Your task to perform on an android device: change notification settings in the gmail app Image 0: 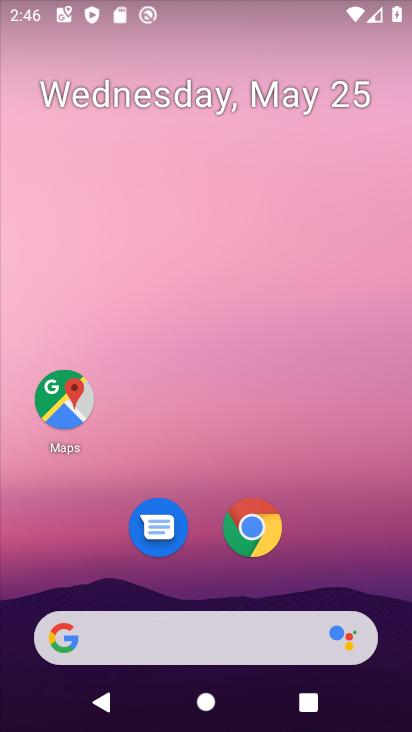
Step 0: drag from (171, 581) to (242, 122)
Your task to perform on an android device: change notification settings in the gmail app Image 1: 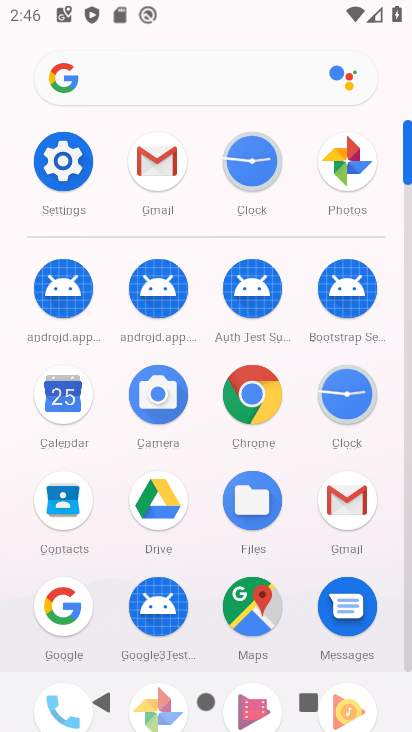
Step 1: click (340, 504)
Your task to perform on an android device: change notification settings in the gmail app Image 2: 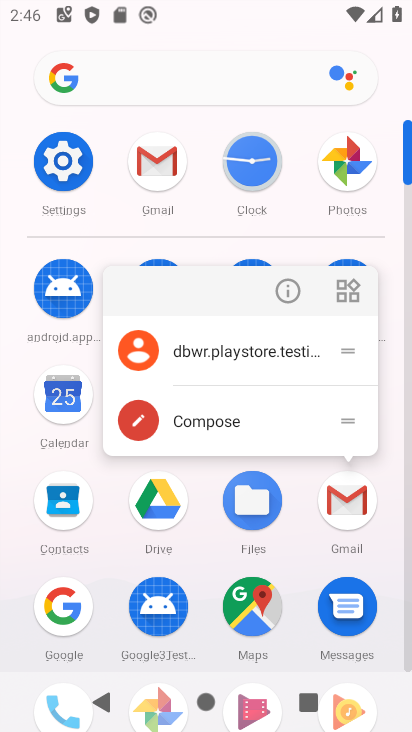
Step 2: click (291, 285)
Your task to perform on an android device: change notification settings in the gmail app Image 3: 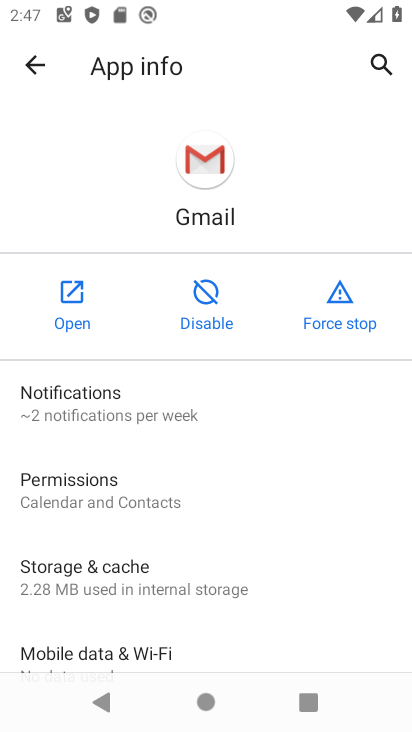
Step 3: click (87, 399)
Your task to perform on an android device: change notification settings in the gmail app Image 4: 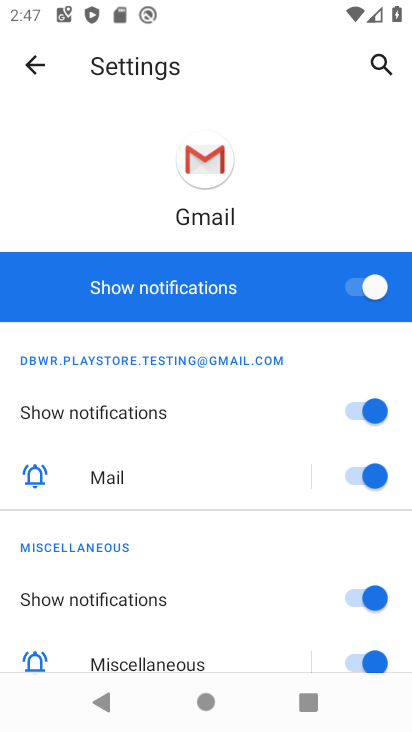
Step 4: click (364, 410)
Your task to perform on an android device: change notification settings in the gmail app Image 5: 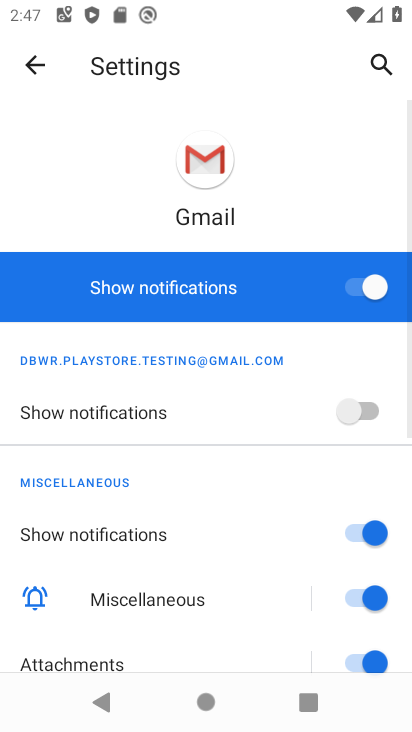
Step 5: task complete